Your task to perform on an android device: Open calendar and show me the second week of next month Image 0: 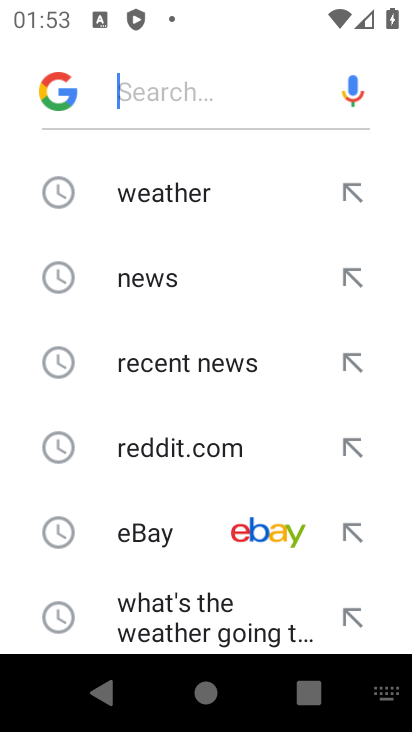
Step 0: press home button
Your task to perform on an android device: Open calendar and show me the second week of next month Image 1: 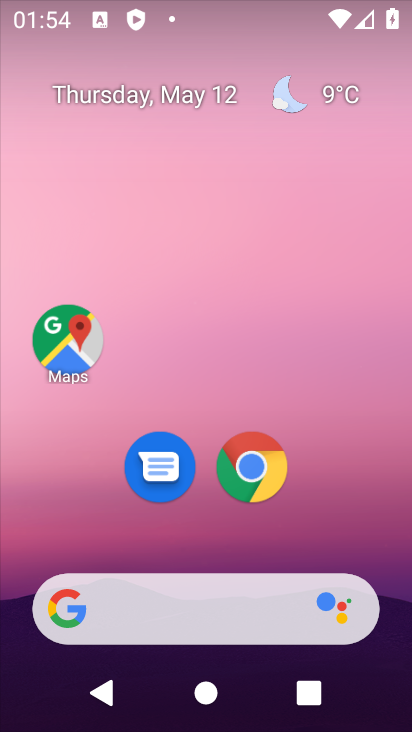
Step 1: drag from (308, 494) to (338, 233)
Your task to perform on an android device: Open calendar and show me the second week of next month Image 2: 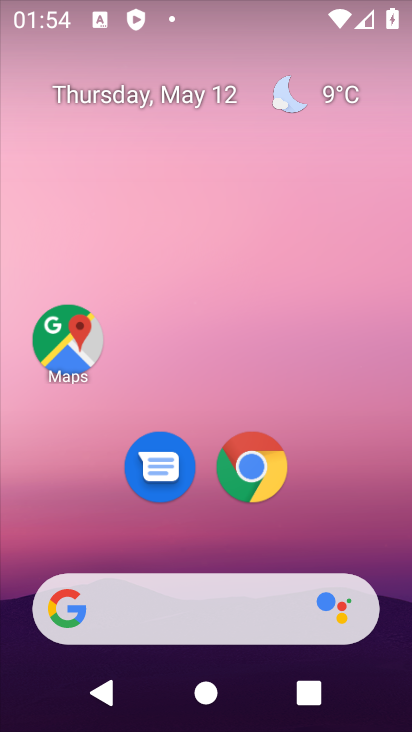
Step 2: drag from (242, 492) to (242, 184)
Your task to perform on an android device: Open calendar and show me the second week of next month Image 3: 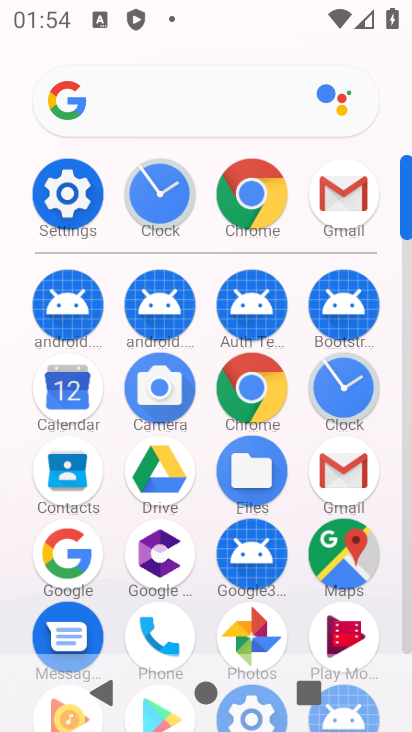
Step 3: click (47, 384)
Your task to perform on an android device: Open calendar and show me the second week of next month Image 4: 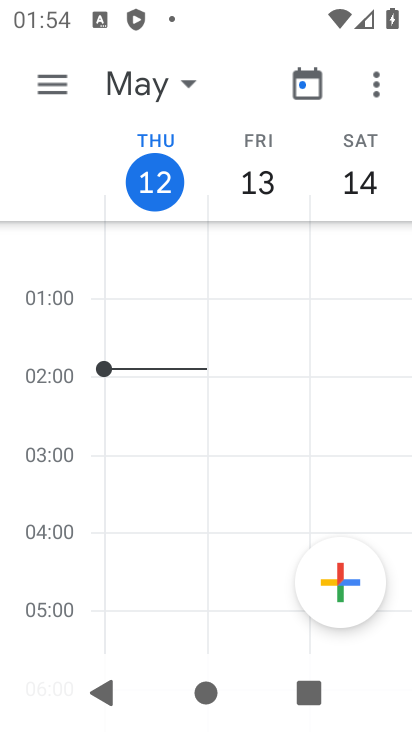
Step 4: click (49, 84)
Your task to perform on an android device: Open calendar and show me the second week of next month Image 5: 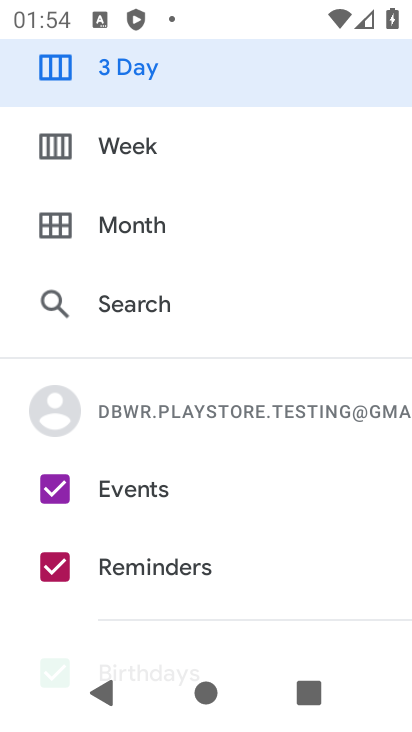
Step 5: drag from (197, 159) to (202, 254)
Your task to perform on an android device: Open calendar and show me the second week of next month Image 6: 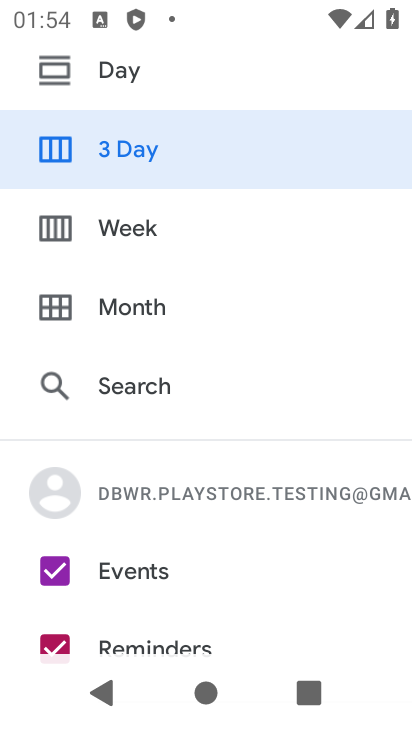
Step 6: click (125, 322)
Your task to perform on an android device: Open calendar and show me the second week of next month Image 7: 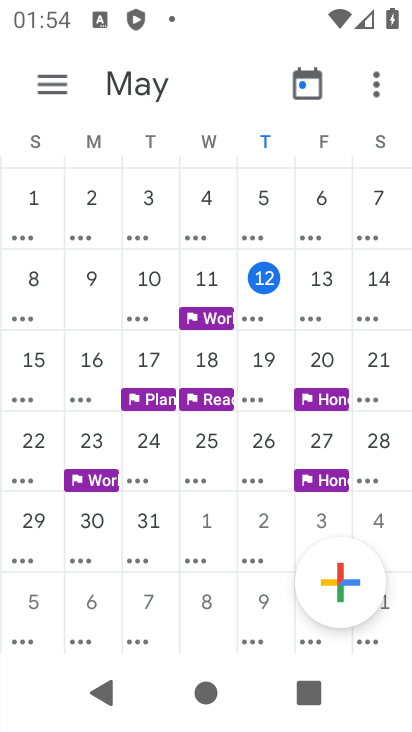
Step 7: task complete